Your task to perform on an android device: change the clock display to digital Image 0: 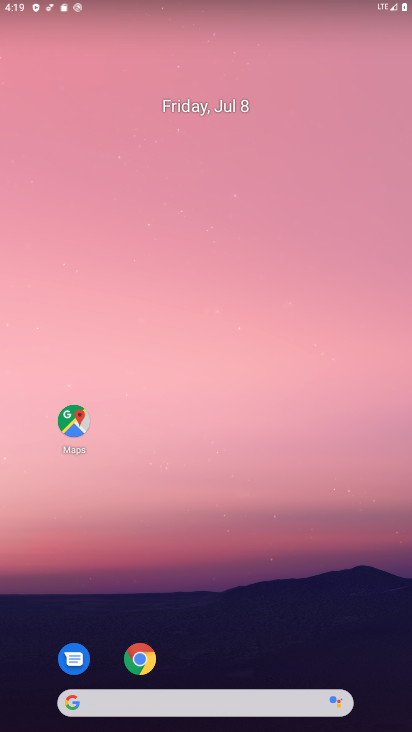
Step 0: drag from (308, 610) to (332, 67)
Your task to perform on an android device: change the clock display to digital Image 1: 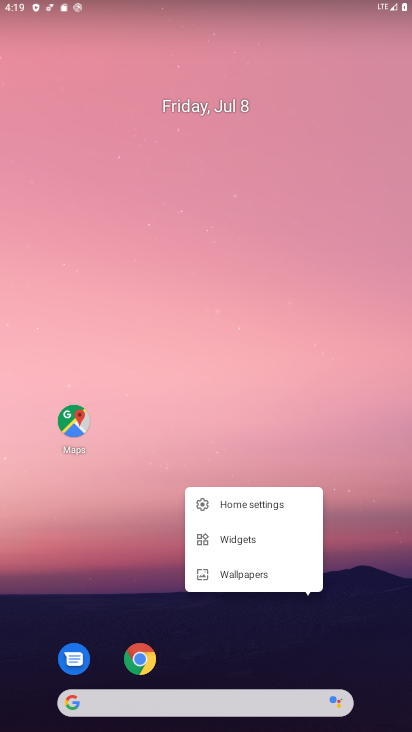
Step 1: drag from (367, 649) to (343, 0)
Your task to perform on an android device: change the clock display to digital Image 2: 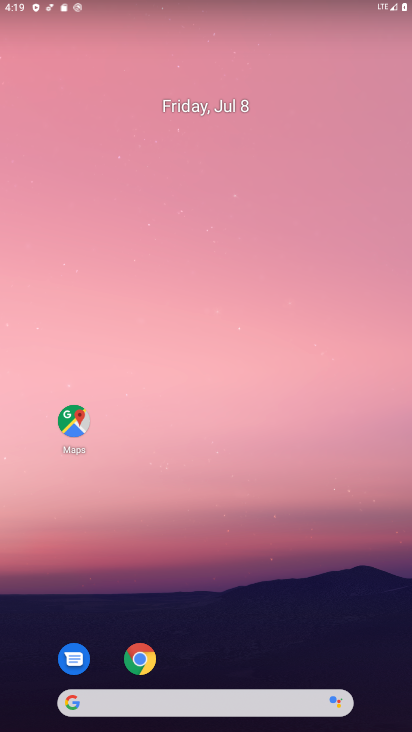
Step 2: drag from (272, 616) to (285, 71)
Your task to perform on an android device: change the clock display to digital Image 3: 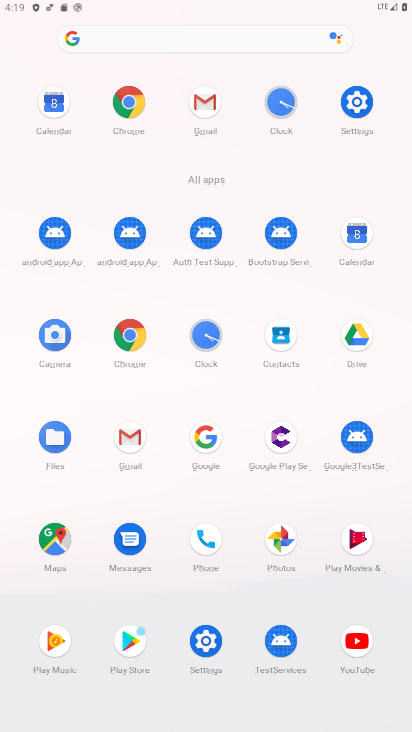
Step 3: click (279, 98)
Your task to perform on an android device: change the clock display to digital Image 4: 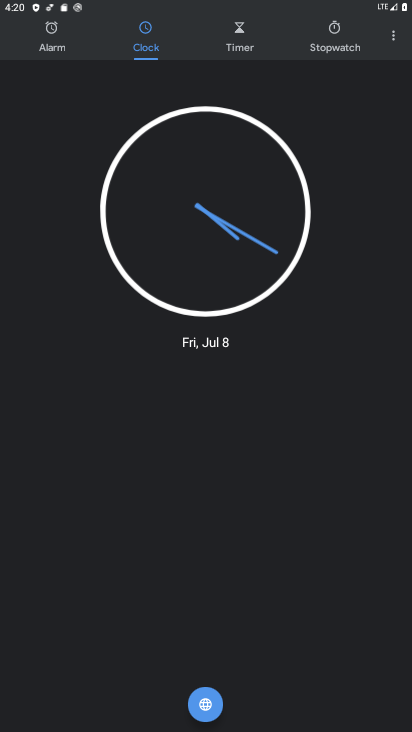
Step 4: click (387, 41)
Your task to perform on an android device: change the clock display to digital Image 5: 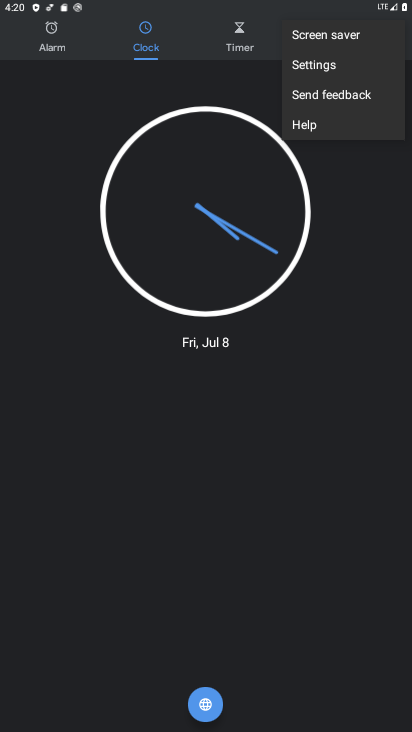
Step 5: click (341, 65)
Your task to perform on an android device: change the clock display to digital Image 6: 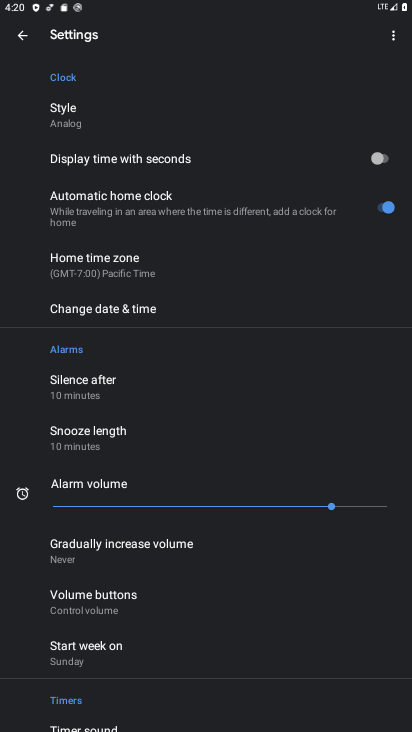
Step 6: click (77, 115)
Your task to perform on an android device: change the clock display to digital Image 7: 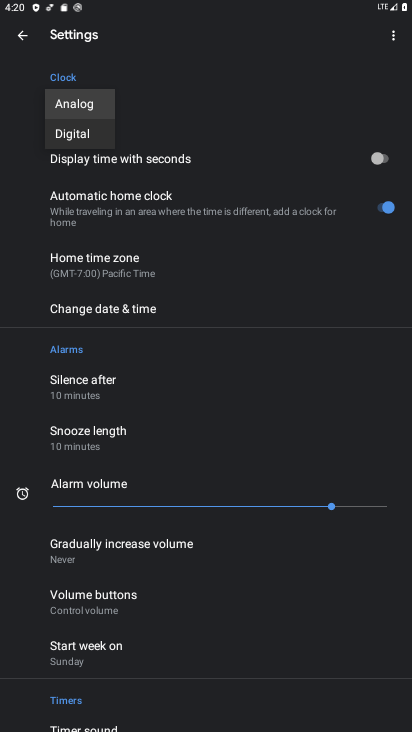
Step 7: click (77, 129)
Your task to perform on an android device: change the clock display to digital Image 8: 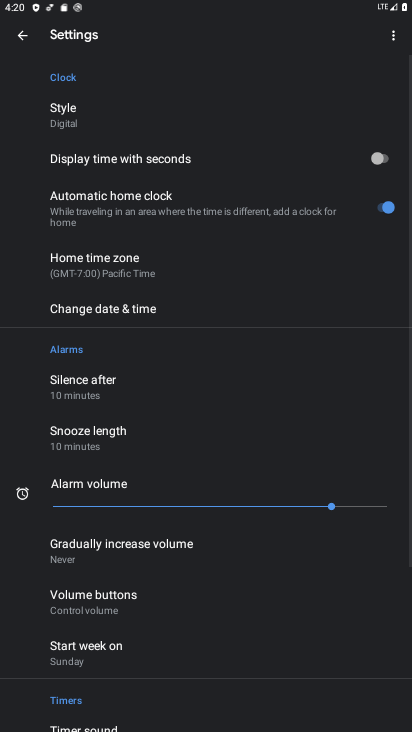
Step 8: task complete